Your task to perform on an android device: Open Google Chrome and open the bookmarks view Image 0: 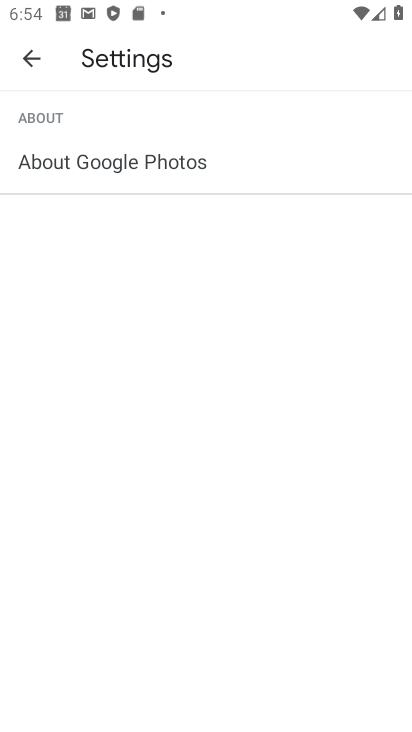
Step 0: press home button
Your task to perform on an android device: Open Google Chrome and open the bookmarks view Image 1: 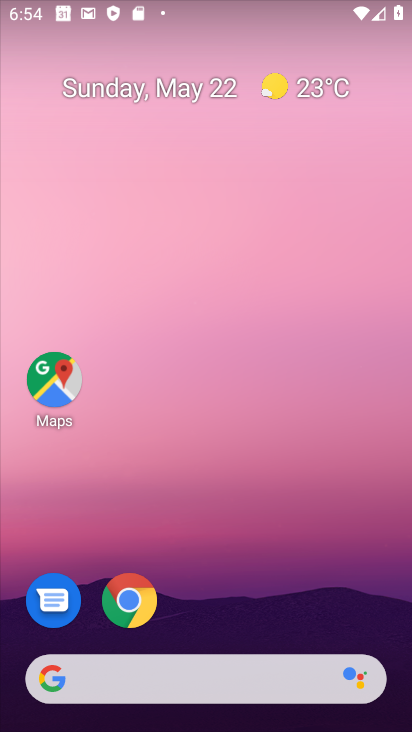
Step 1: drag from (333, 611) to (318, 47)
Your task to perform on an android device: Open Google Chrome and open the bookmarks view Image 2: 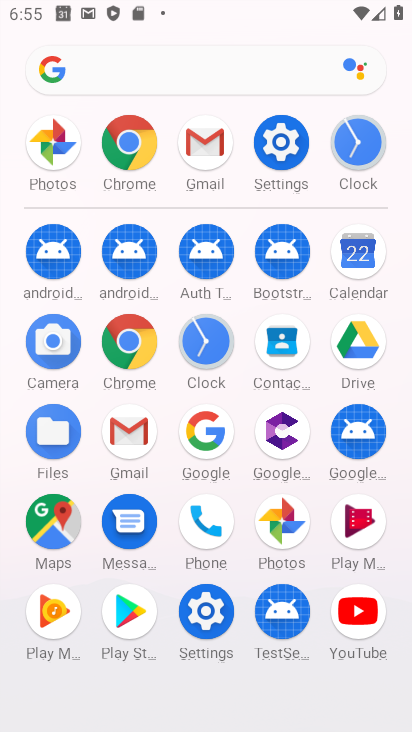
Step 2: click (129, 356)
Your task to perform on an android device: Open Google Chrome and open the bookmarks view Image 3: 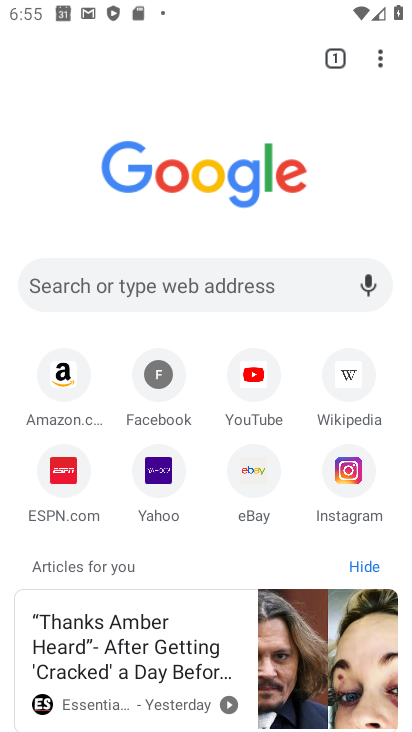
Step 3: click (380, 56)
Your task to perform on an android device: Open Google Chrome and open the bookmarks view Image 4: 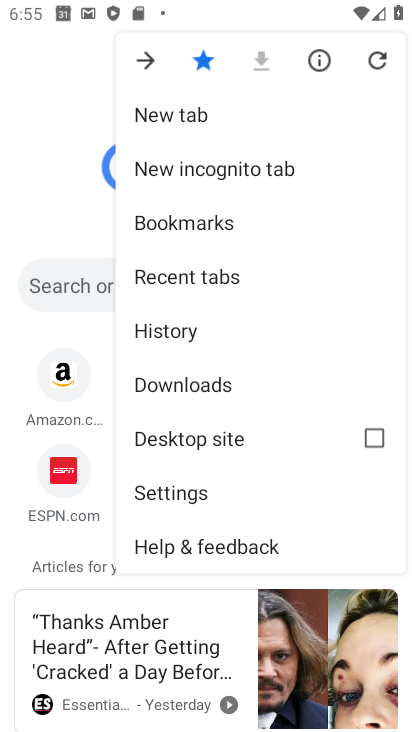
Step 4: click (192, 220)
Your task to perform on an android device: Open Google Chrome and open the bookmarks view Image 5: 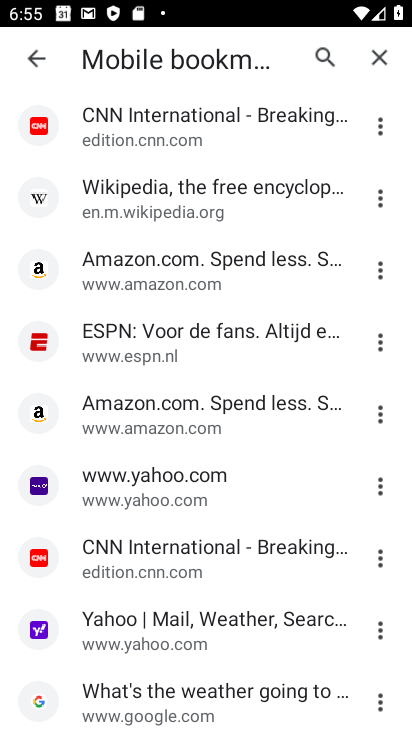
Step 5: task complete